Your task to perform on an android device: Search for Mexican restaurants on Maps Image 0: 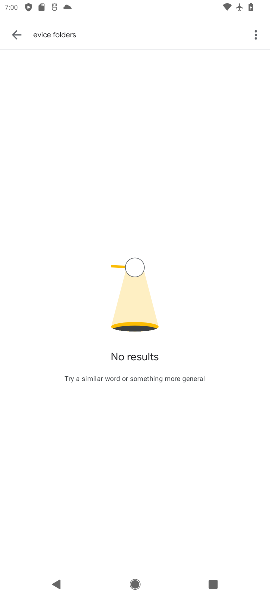
Step 0: press home button
Your task to perform on an android device: Search for Mexican restaurants on Maps Image 1: 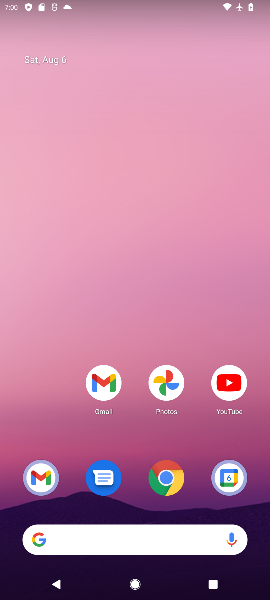
Step 1: drag from (51, 421) to (116, 84)
Your task to perform on an android device: Search for Mexican restaurants on Maps Image 2: 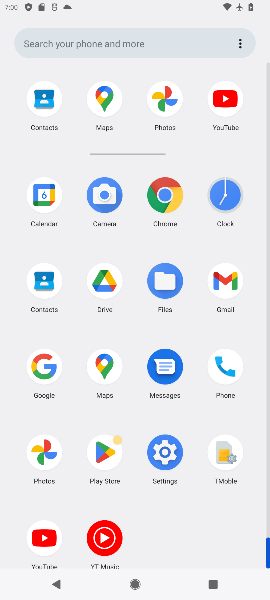
Step 2: click (103, 97)
Your task to perform on an android device: Search for Mexican restaurants on Maps Image 3: 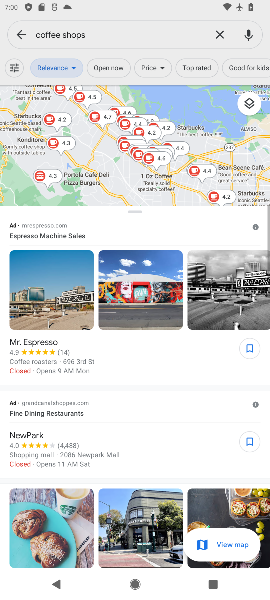
Step 3: click (222, 32)
Your task to perform on an android device: Search for Mexican restaurants on Maps Image 4: 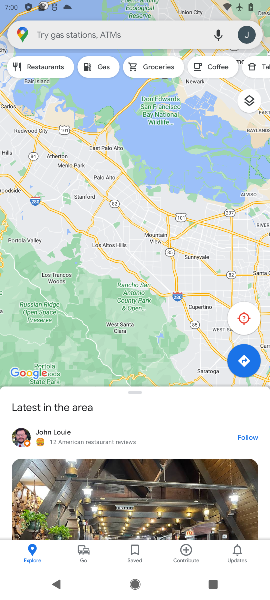
Step 4: type "Mexican restaurants "
Your task to perform on an android device: Search for Mexican restaurants on Maps Image 5: 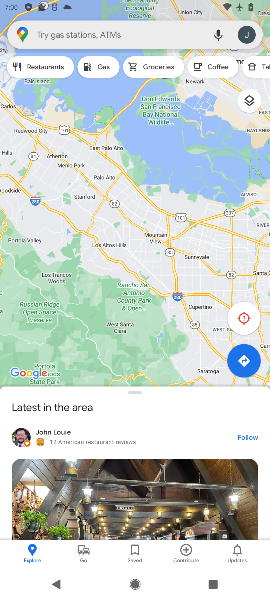
Step 5: click (84, 33)
Your task to perform on an android device: Search for Mexican restaurants on Maps Image 6: 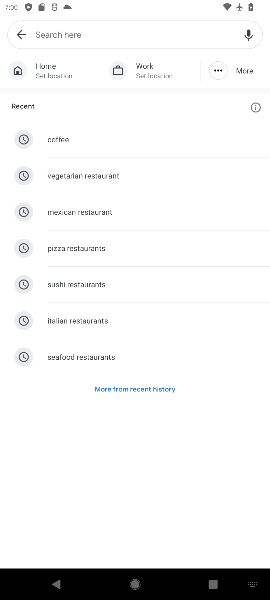
Step 6: click (78, 214)
Your task to perform on an android device: Search for Mexican restaurants on Maps Image 7: 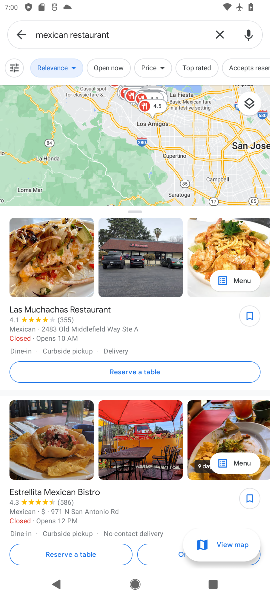
Step 7: task complete